Your task to perform on an android device: Search for asus rog on amazon, select the first entry, and add it to the cart. Image 0: 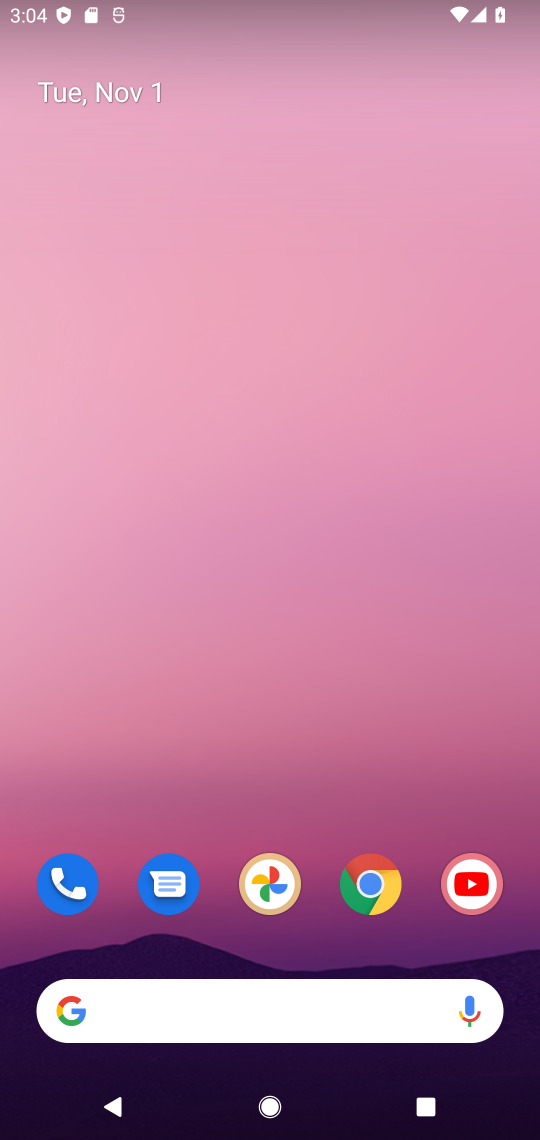
Step 0: click (357, 894)
Your task to perform on an android device: Search for asus rog on amazon, select the first entry, and add it to the cart. Image 1: 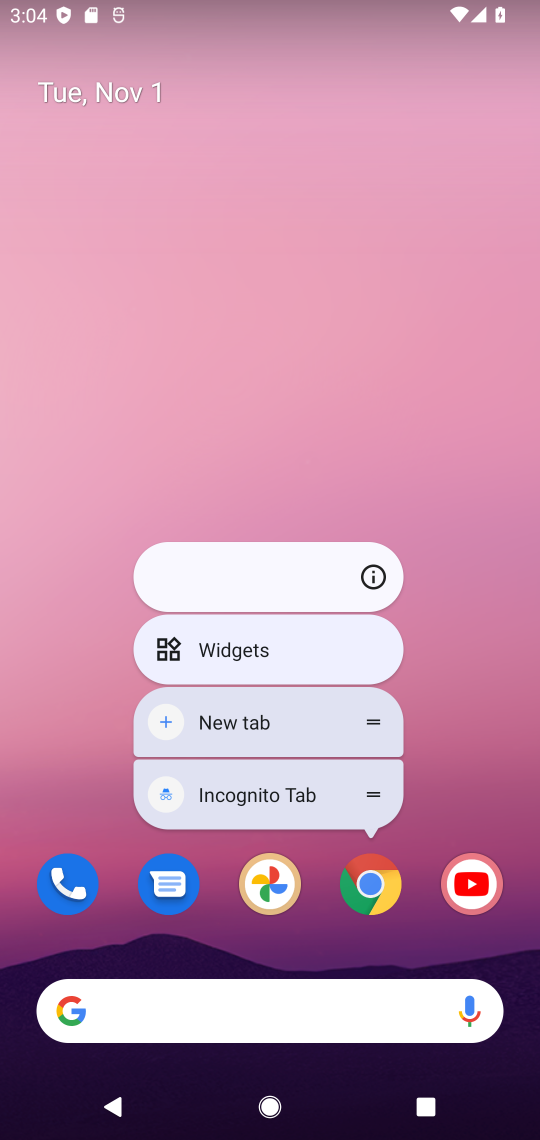
Step 1: click (368, 876)
Your task to perform on an android device: Search for asus rog on amazon, select the first entry, and add it to the cart. Image 2: 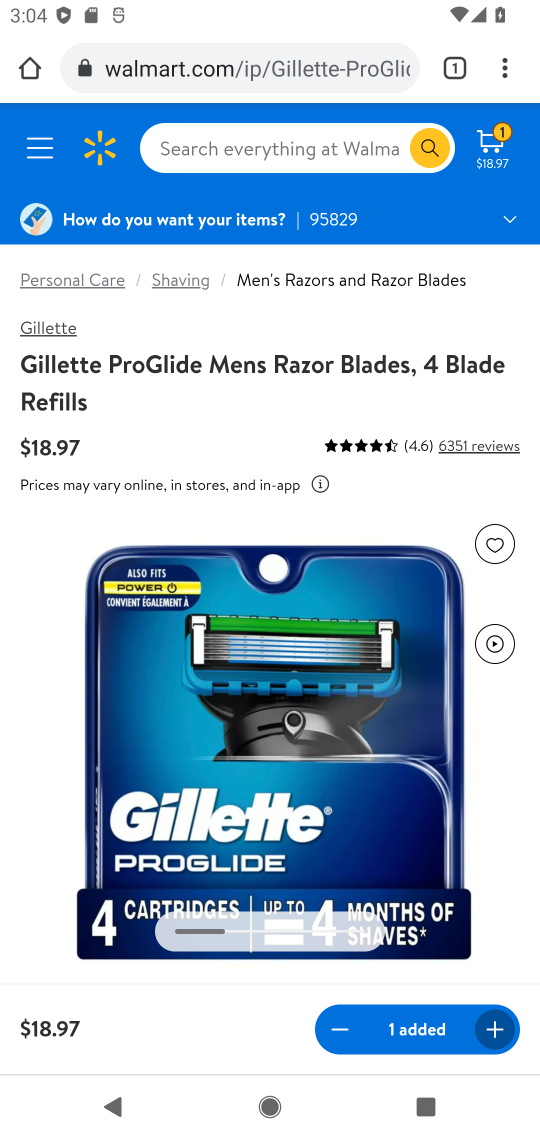
Step 2: click (316, 61)
Your task to perform on an android device: Search for asus rog on amazon, select the first entry, and add it to the cart. Image 3: 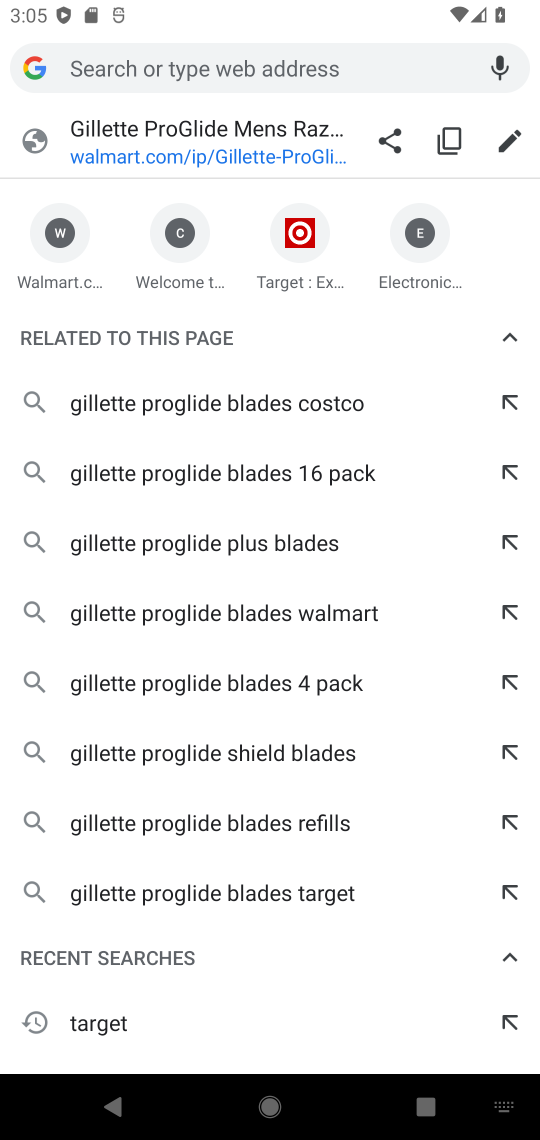
Step 3: type "amazon"
Your task to perform on an android device: Search for asus rog on amazon, select the first entry, and add it to the cart. Image 4: 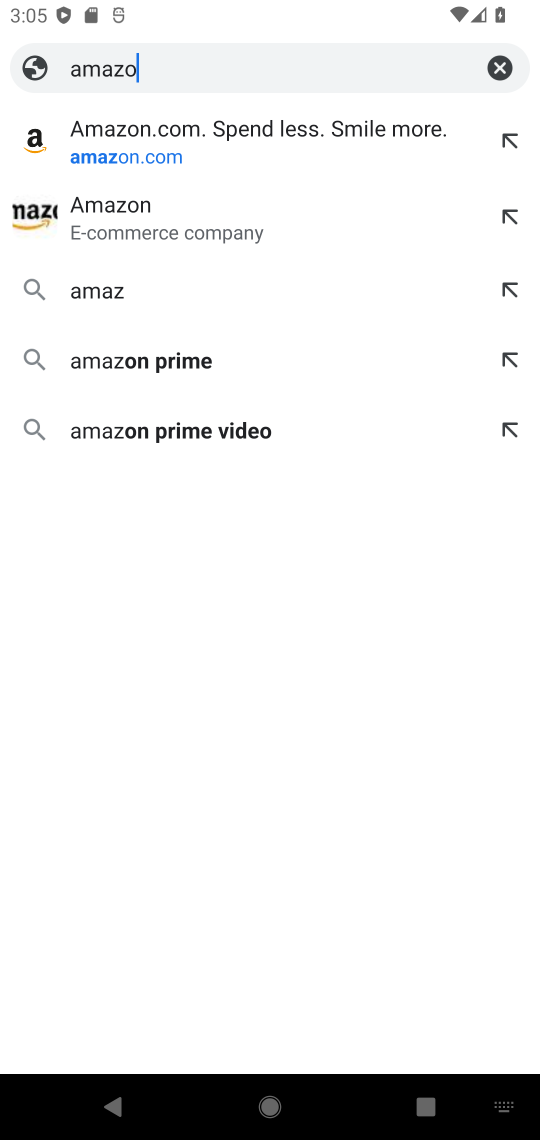
Step 4: press enter
Your task to perform on an android device: Search for asus rog on amazon, select the first entry, and add it to the cart. Image 5: 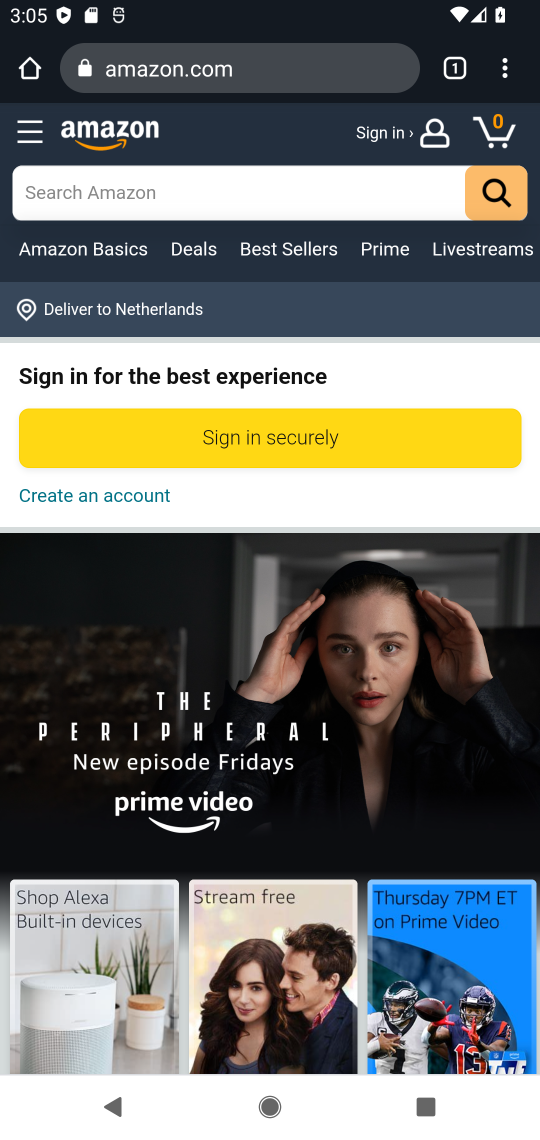
Step 5: click (358, 192)
Your task to perform on an android device: Search for asus rog on amazon, select the first entry, and add it to the cart. Image 6: 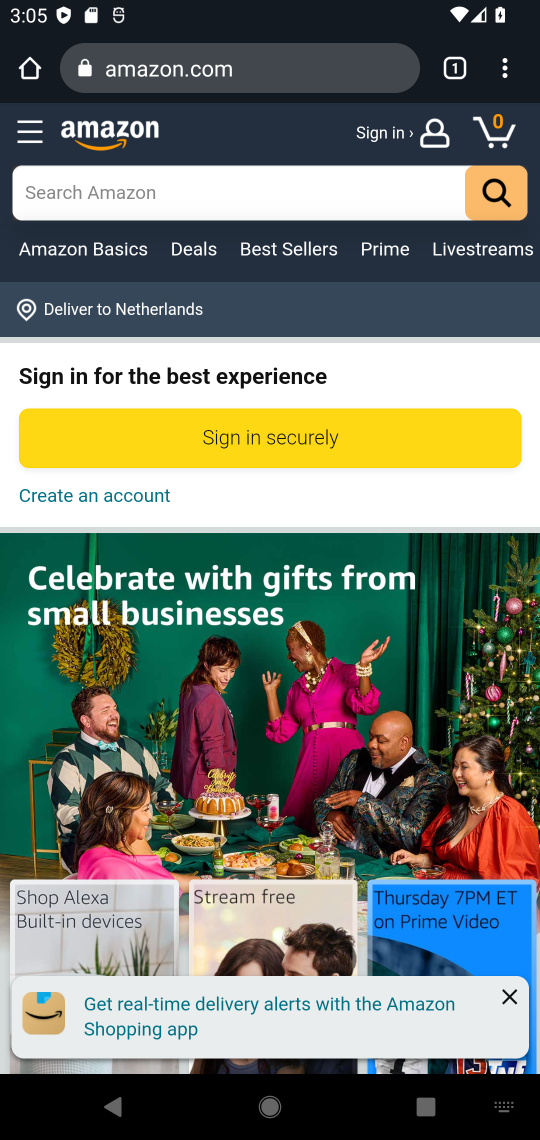
Step 6: type "asus rog"
Your task to perform on an android device: Search for asus rog on amazon, select the first entry, and add it to the cart. Image 7: 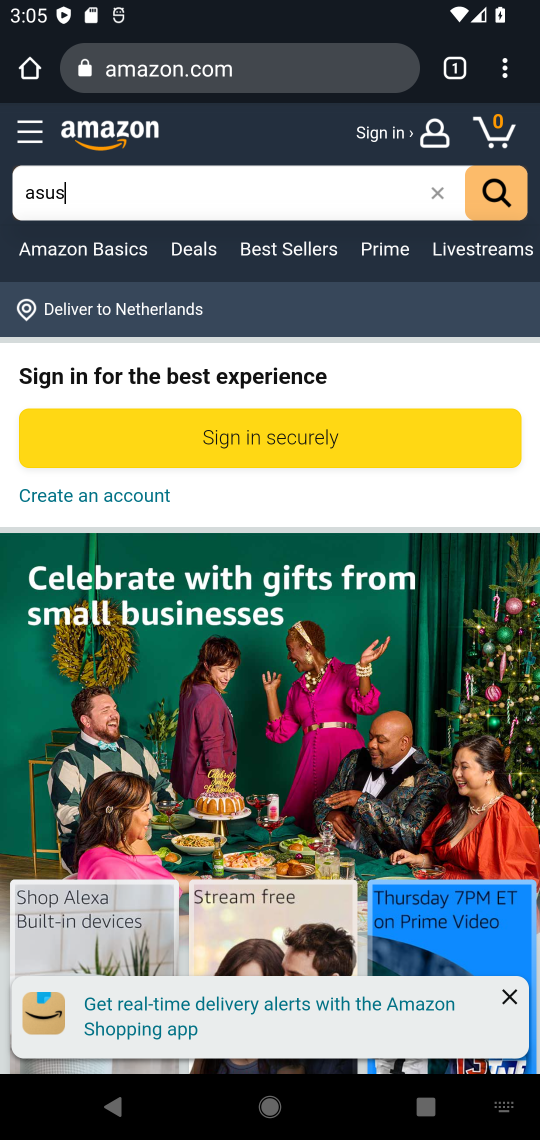
Step 7: press enter
Your task to perform on an android device: Search for asus rog on amazon, select the first entry, and add it to the cart. Image 8: 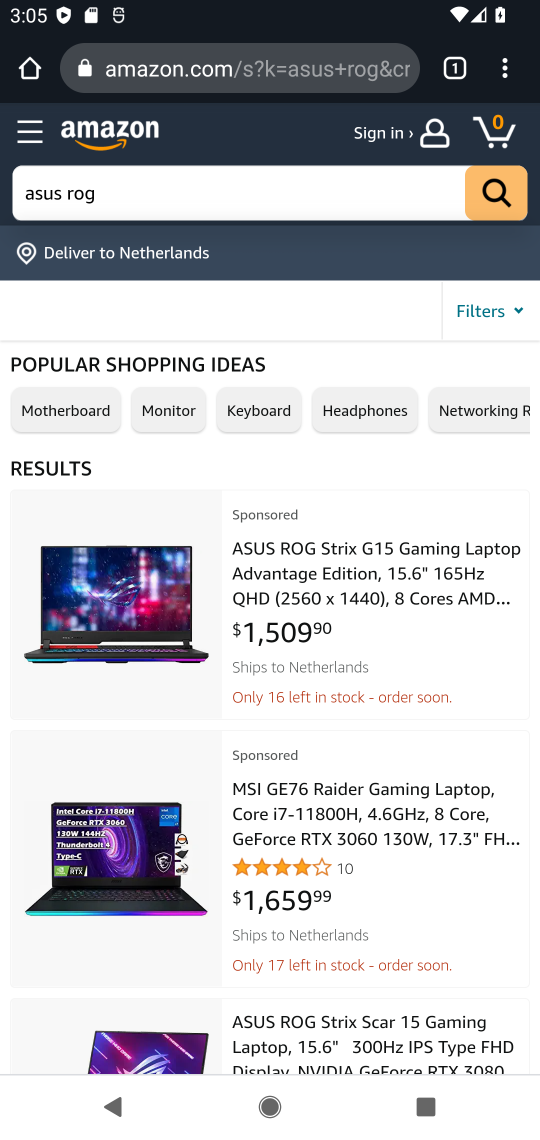
Step 8: click (131, 604)
Your task to perform on an android device: Search for asus rog on amazon, select the first entry, and add it to the cart. Image 9: 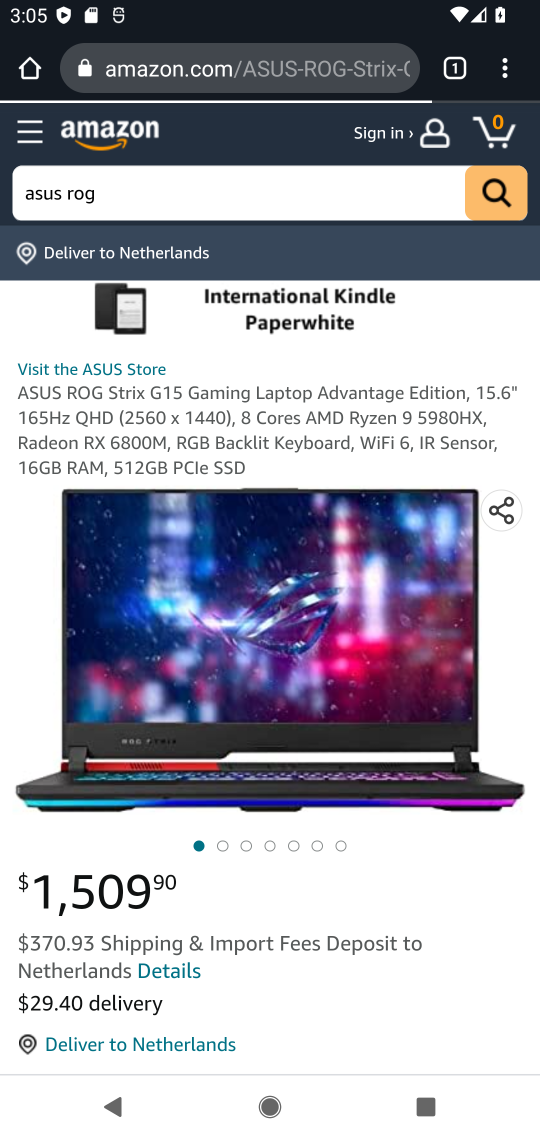
Step 9: drag from (403, 657) to (419, 448)
Your task to perform on an android device: Search for asus rog on amazon, select the first entry, and add it to the cart. Image 10: 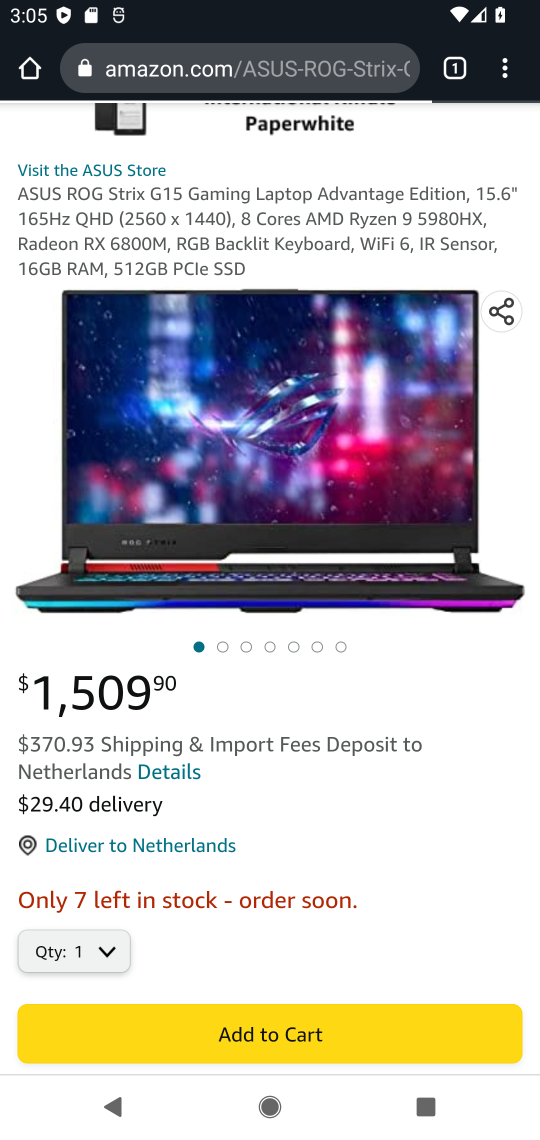
Step 10: click (348, 1032)
Your task to perform on an android device: Search for asus rog on amazon, select the first entry, and add it to the cart. Image 11: 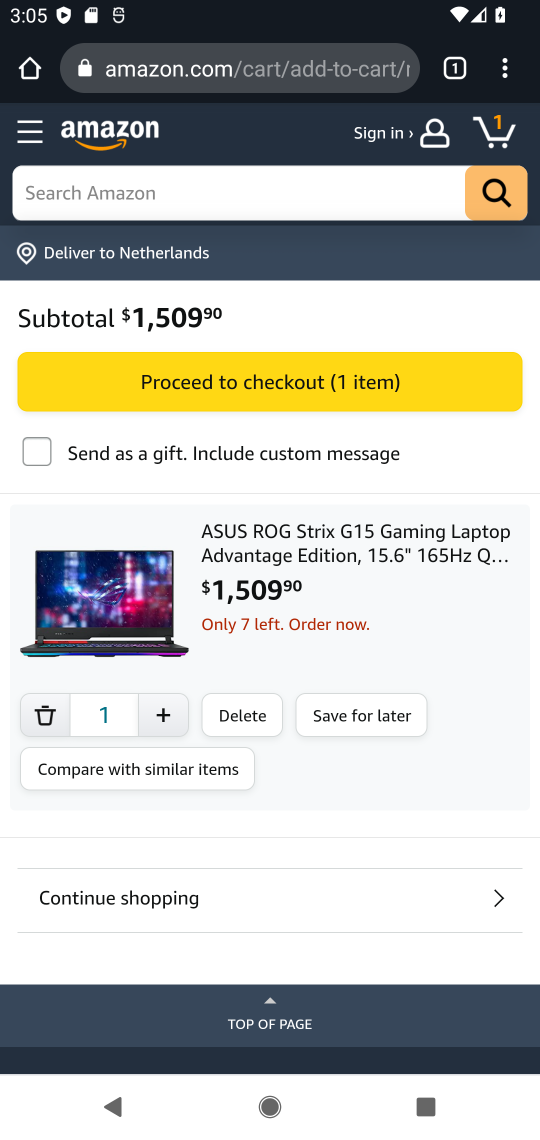
Step 11: task complete